Your task to perform on an android device: turn off javascript in the chrome app Image 0: 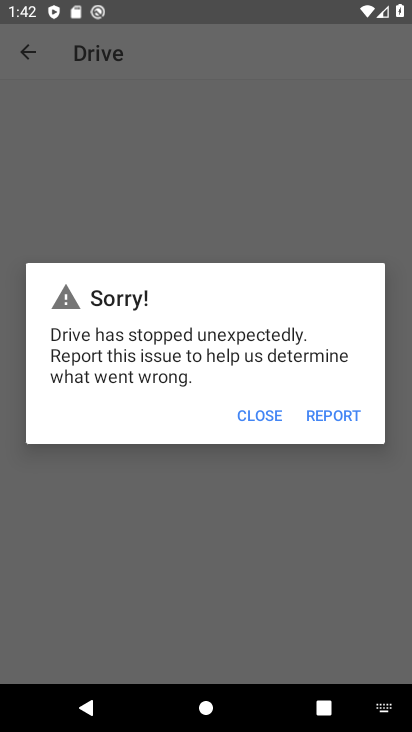
Step 0: press home button
Your task to perform on an android device: turn off javascript in the chrome app Image 1: 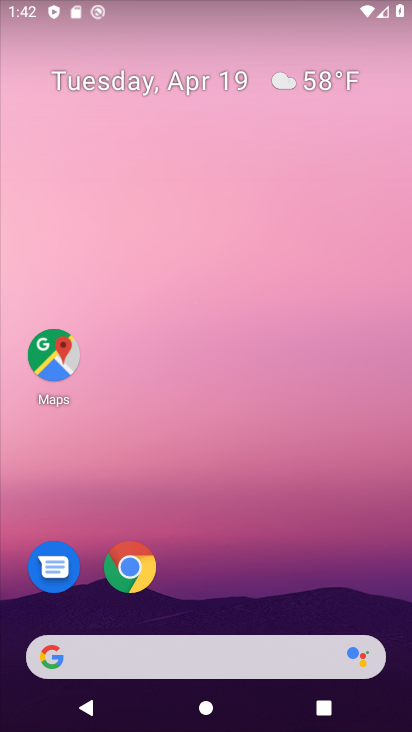
Step 1: click (124, 573)
Your task to perform on an android device: turn off javascript in the chrome app Image 2: 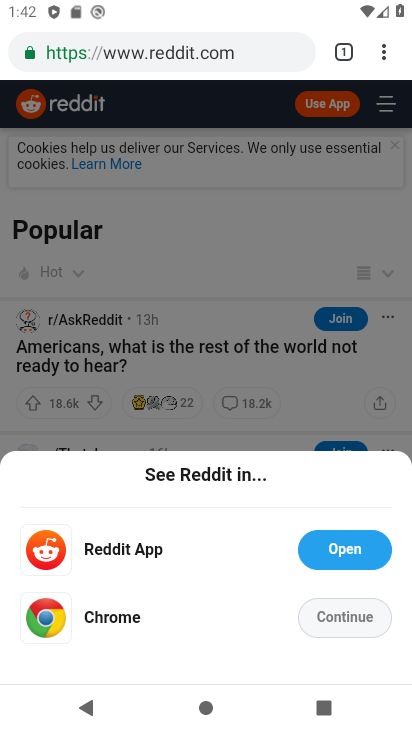
Step 2: click (380, 55)
Your task to perform on an android device: turn off javascript in the chrome app Image 3: 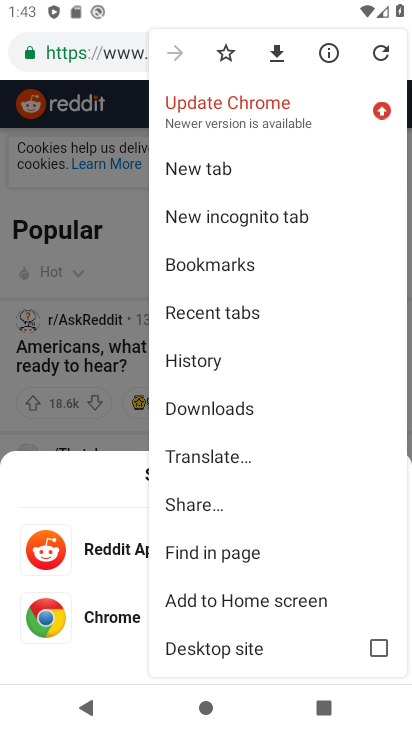
Step 3: drag from (290, 610) to (314, 276)
Your task to perform on an android device: turn off javascript in the chrome app Image 4: 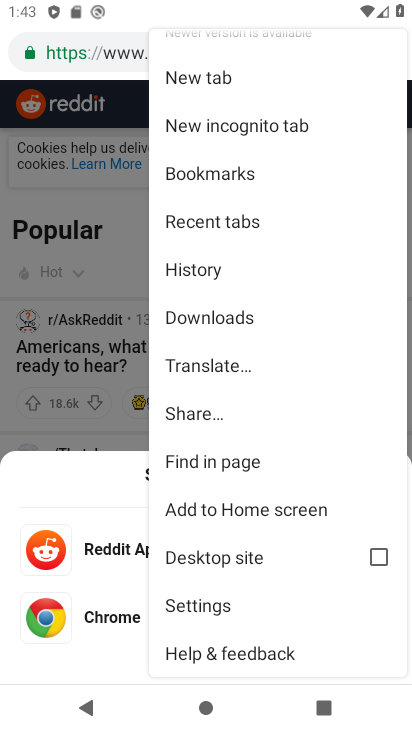
Step 4: click (197, 606)
Your task to perform on an android device: turn off javascript in the chrome app Image 5: 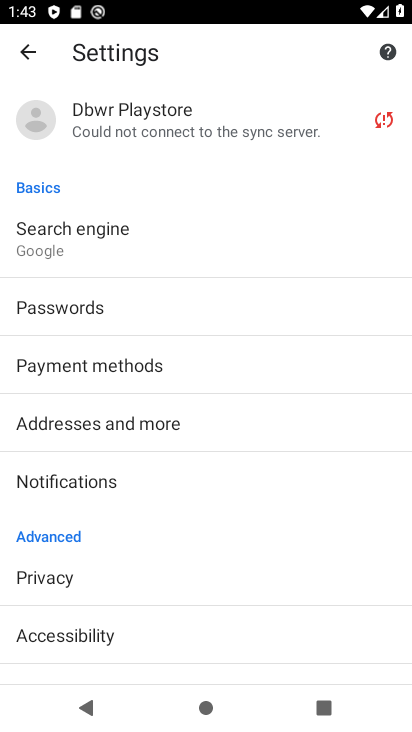
Step 5: drag from (157, 612) to (242, 250)
Your task to perform on an android device: turn off javascript in the chrome app Image 6: 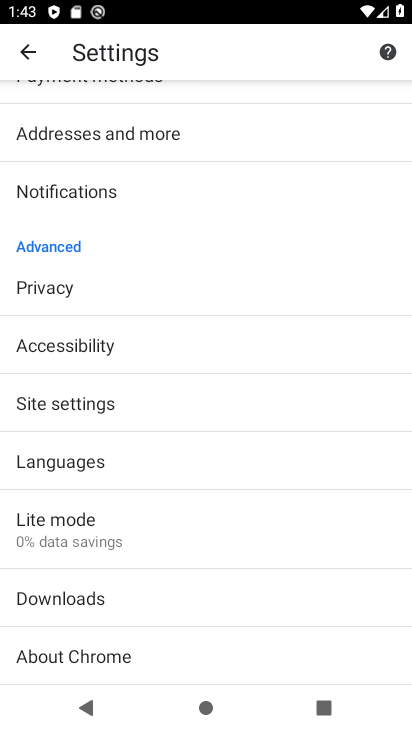
Step 6: click (58, 404)
Your task to perform on an android device: turn off javascript in the chrome app Image 7: 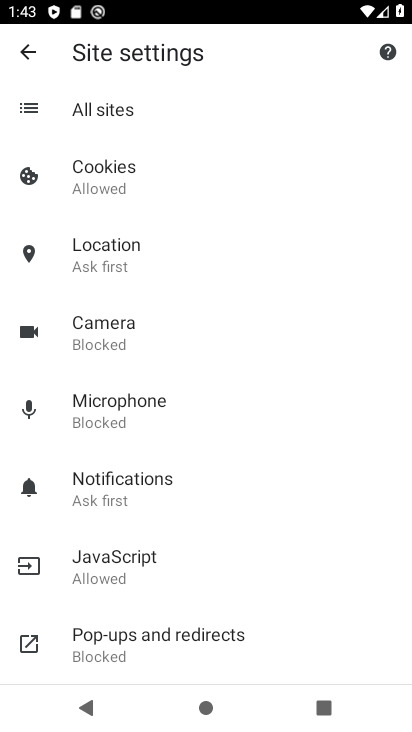
Step 7: click (105, 572)
Your task to perform on an android device: turn off javascript in the chrome app Image 8: 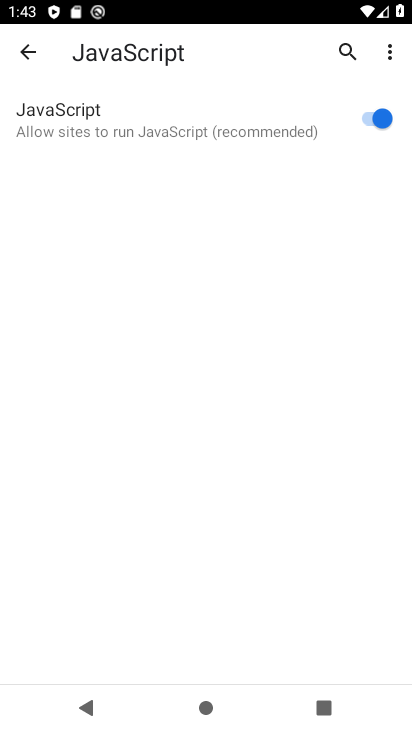
Step 8: click (365, 117)
Your task to perform on an android device: turn off javascript in the chrome app Image 9: 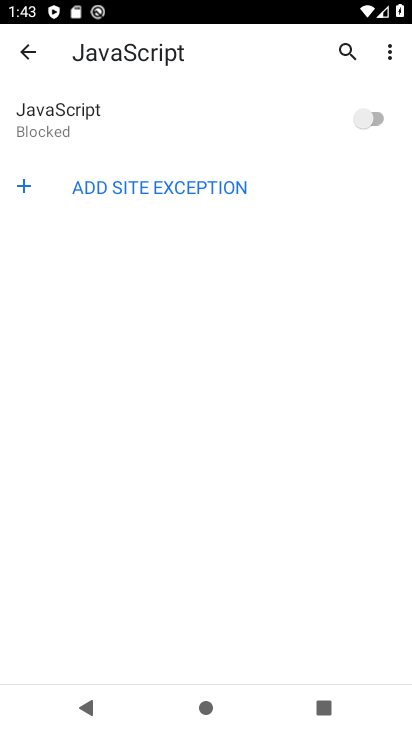
Step 9: task complete